Your task to perform on an android device: turn on data saver in the chrome app Image 0: 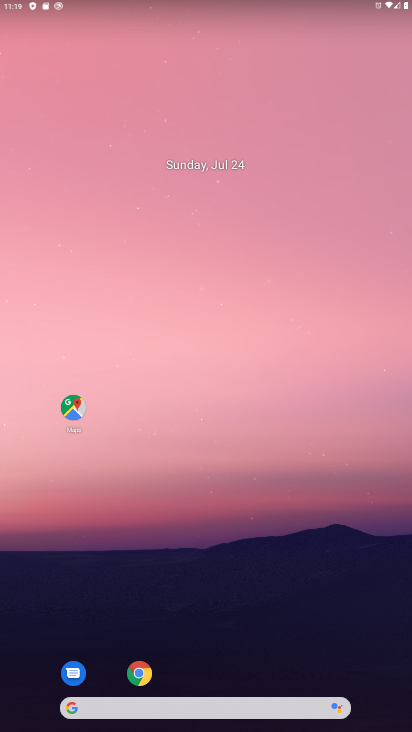
Step 0: drag from (291, 580) to (296, 131)
Your task to perform on an android device: turn on data saver in the chrome app Image 1: 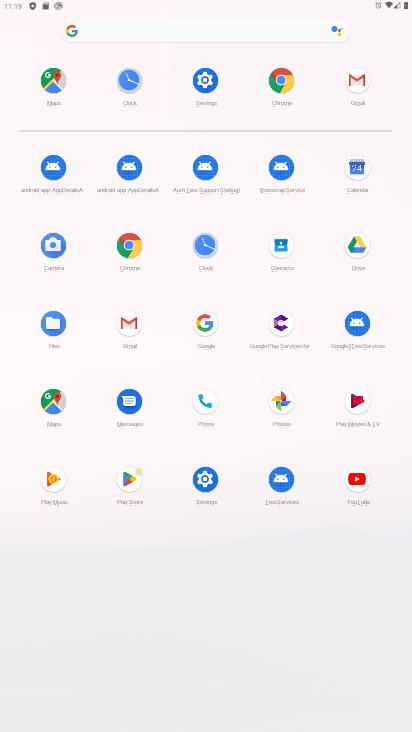
Step 1: click (125, 243)
Your task to perform on an android device: turn on data saver in the chrome app Image 2: 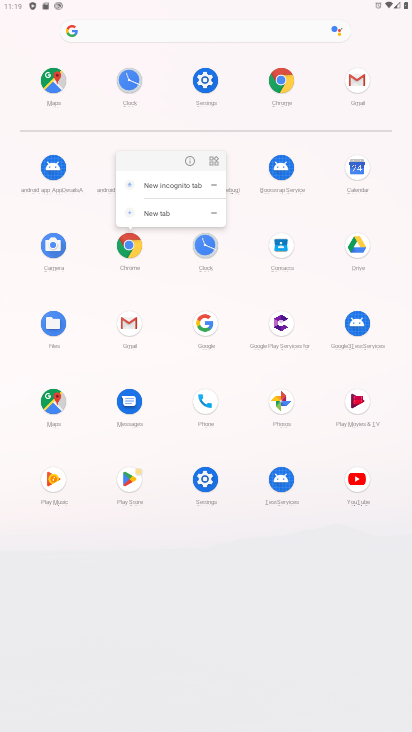
Step 2: click (133, 244)
Your task to perform on an android device: turn on data saver in the chrome app Image 3: 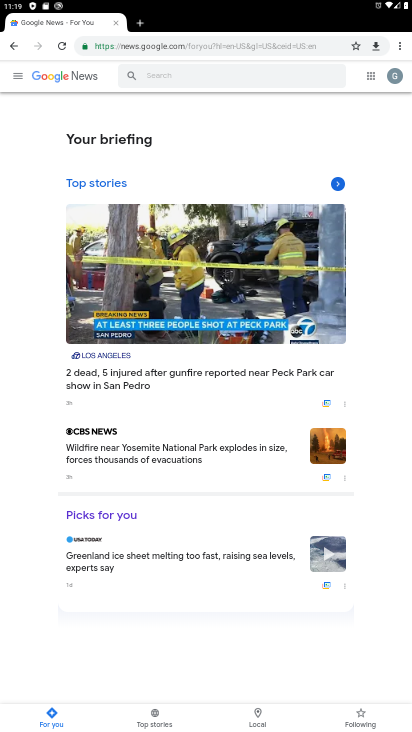
Step 3: drag from (401, 46) to (309, 337)
Your task to perform on an android device: turn on data saver in the chrome app Image 4: 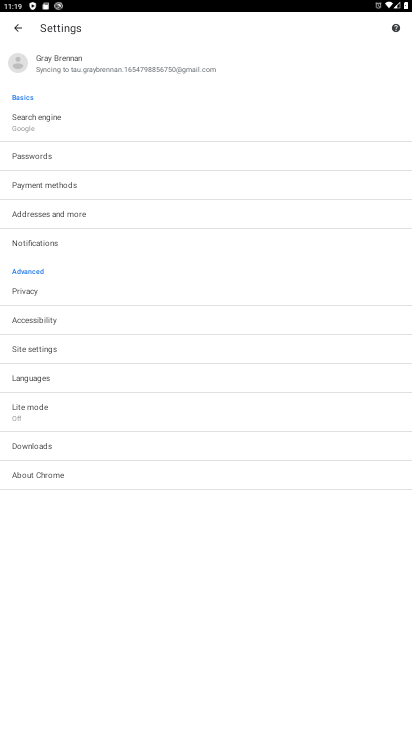
Step 4: click (150, 421)
Your task to perform on an android device: turn on data saver in the chrome app Image 5: 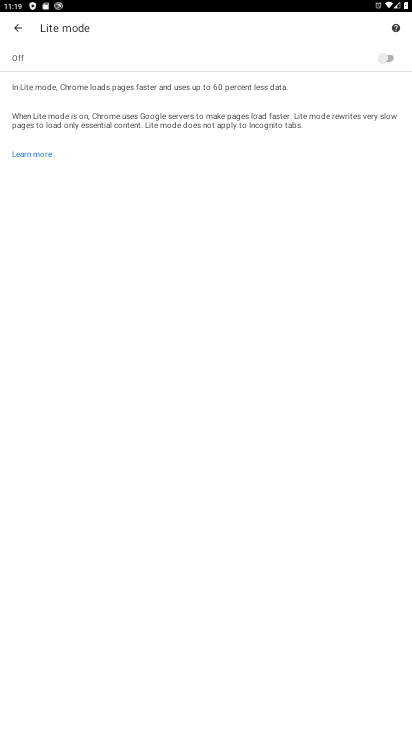
Step 5: click (383, 63)
Your task to perform on an android device: turn on data saver in the chrome app Image 6: 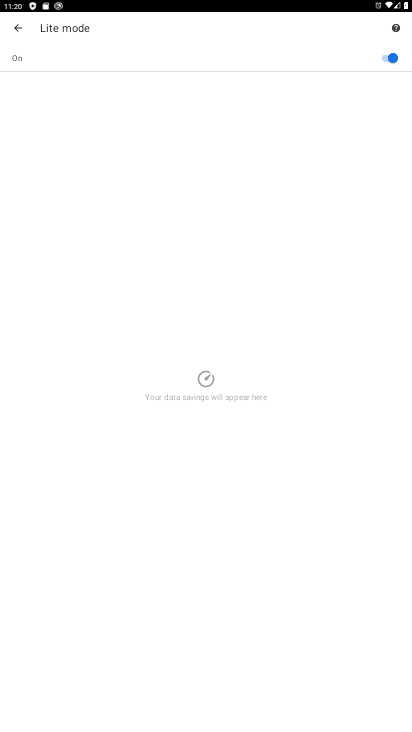
Step 6: task complete